Your task to perform on an android device: open a bookmark in the chrome app Image 0: 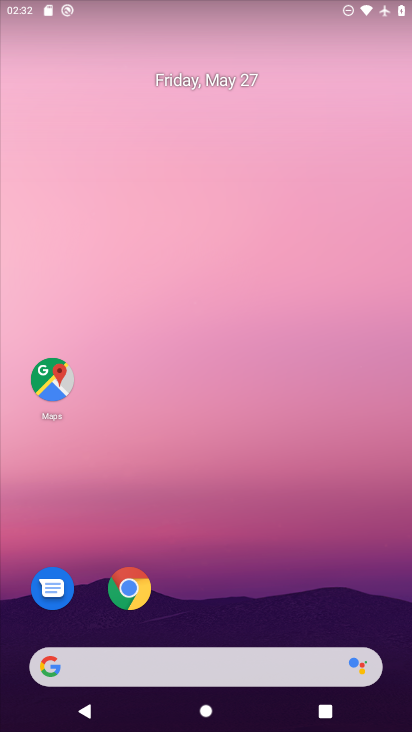
Step 0: click (128, 588)
Your task to perform on an android device: open a bookmark in the chrome app Image 1: 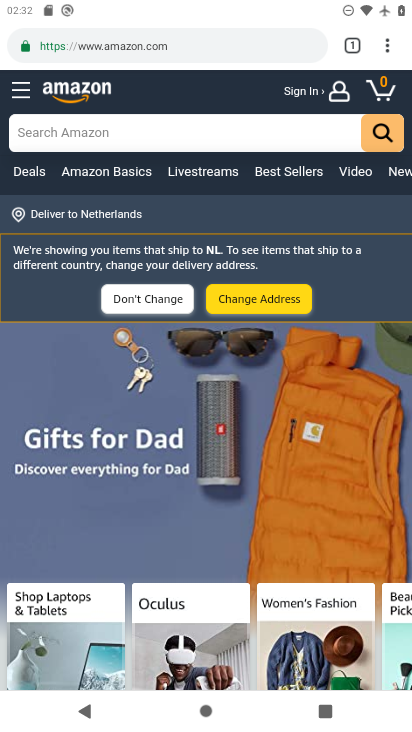
Step 1: click (384, 51)
Your task to perform on an android device: open a bookmark in the chrome app Image 2: 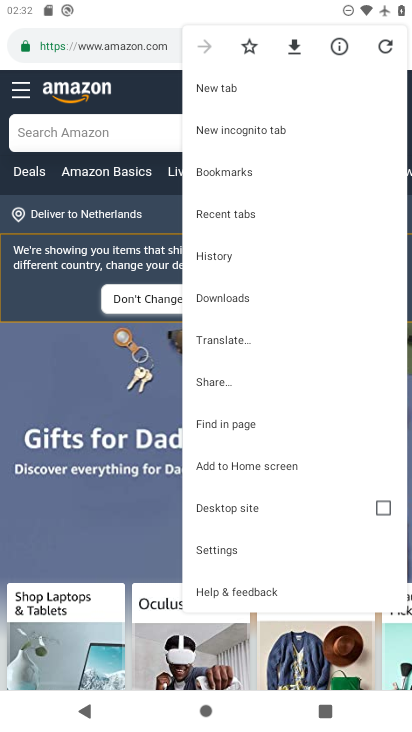
Step 2: click (223, 168)
Your task to perform on an android device: open a bookmark in the chrome app Image 3: 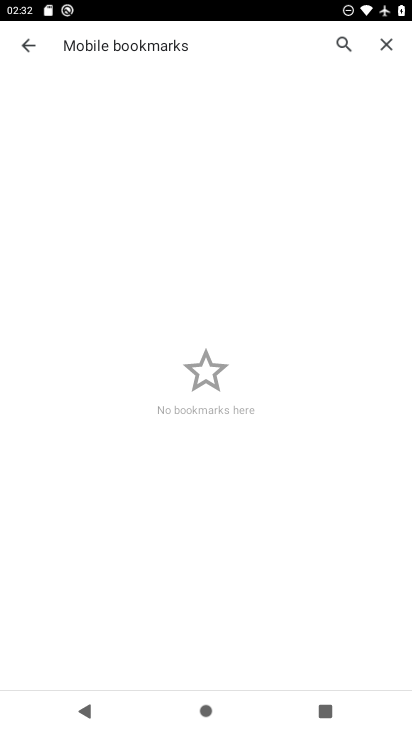
Step 3: task complete